Your task to perform on an android device: turn off notifications in google photos Image 0: 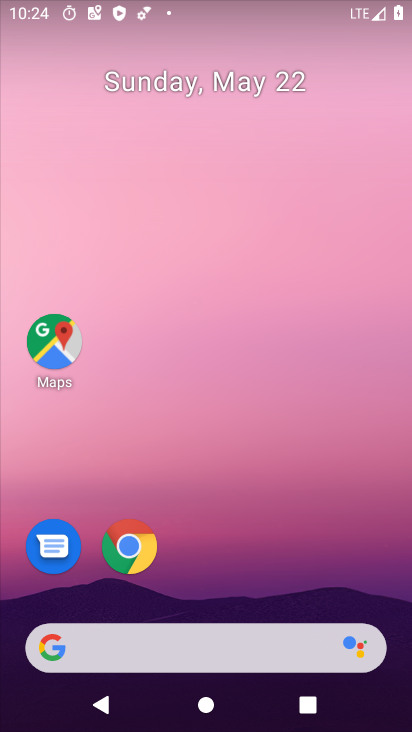
Step 0: drag from (214, 595) to (214, 144)
Your task to perform on an android device: turn off notifications in google photos Image 1: 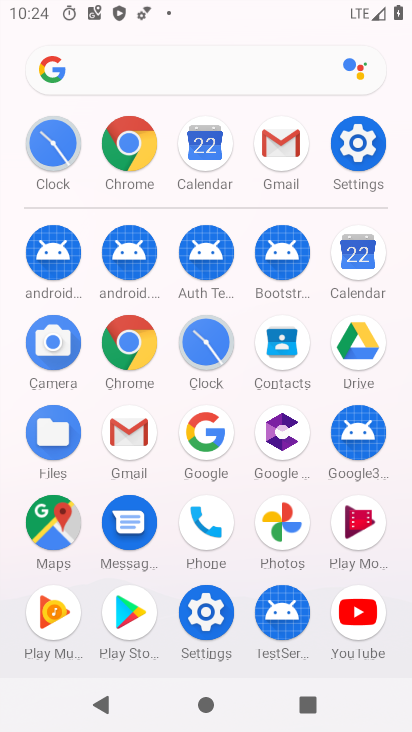
Step 1: click (287, 530)
Your task to perform on an android device: turn off notifications in google photos Image 2: 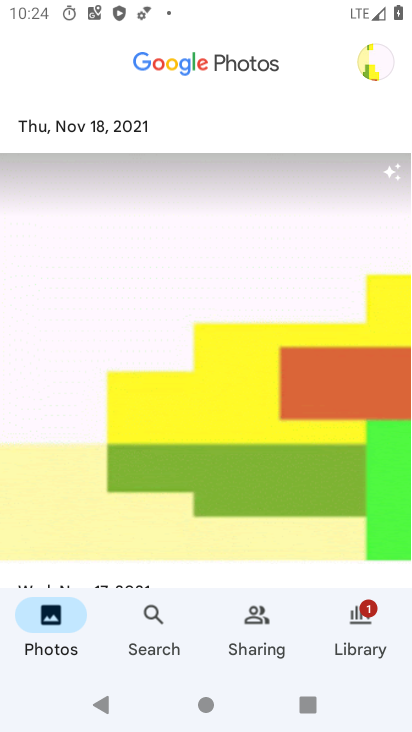
Step 2: drag from (366, 266) to (66, 361)
Your task to perform on an android device: turn off notifications in google photos Image 3: 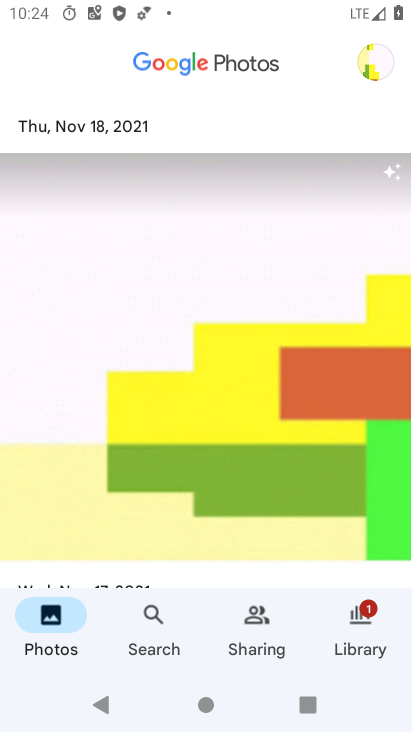
Step 3: drag from (205, 572) to (254, 165)
Your task to perform on an android device: turn off notifications in google photos Image 4: 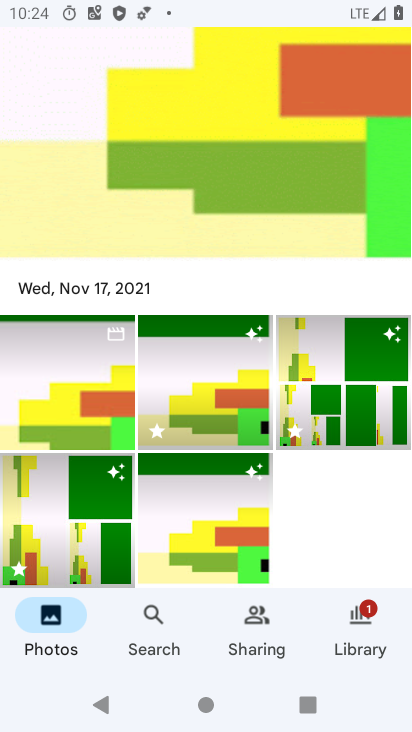
Step 4: drag from (297, 548) to (291, 223)
Your task to perform on an android device: turn off notifications in google photos Image 5: 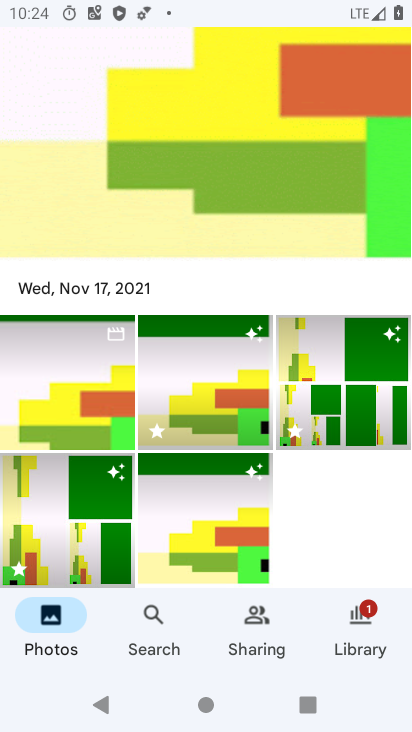
Step 5: drag from (312, 530) to (331, 370)
Your task to perform on an android device: turn off notifications in google photos Image 6: 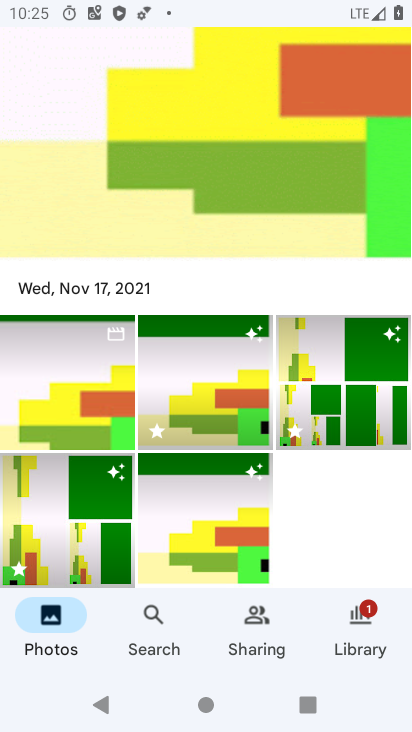
Step 6: drag from (298, 512) to (247, 24)
Your task to perform on an android device: turn off notifications in google photos Image 7: 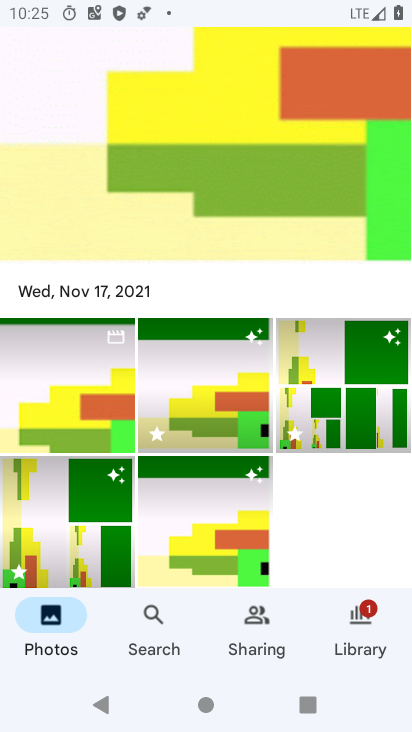
Step 7: drag from (305, 514) to (310, 164)
Your task to perform on an android device: turn off notifications in google photos Image 8: 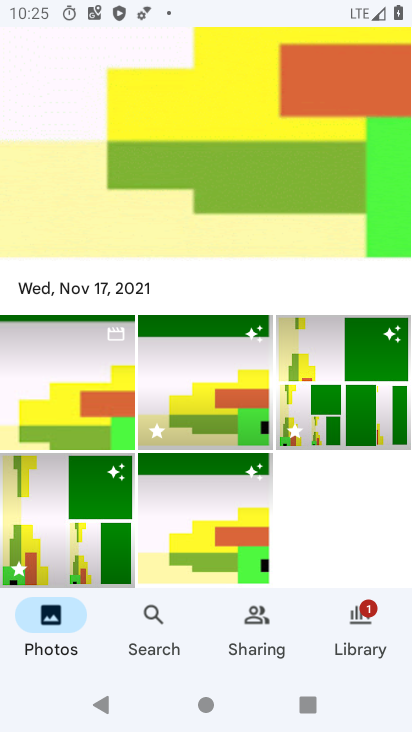
Step 8: click (363, 660)
Your task to perform on an android device: turn off notifications in google photos Image 9: 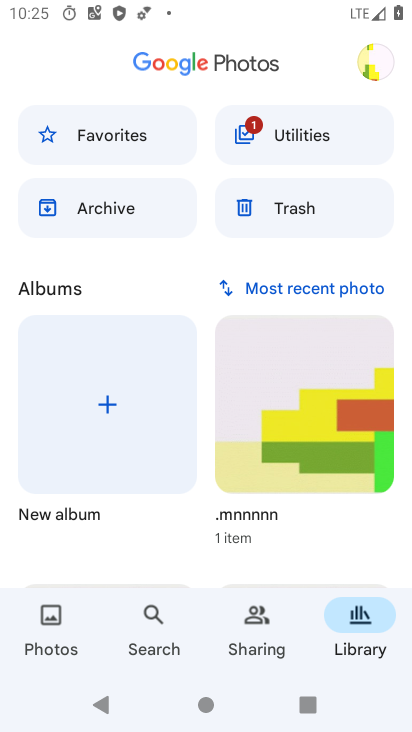
Step 9: click (367, 73)
Your task to perform on an android device: turn off notifications in google photos Image 10: 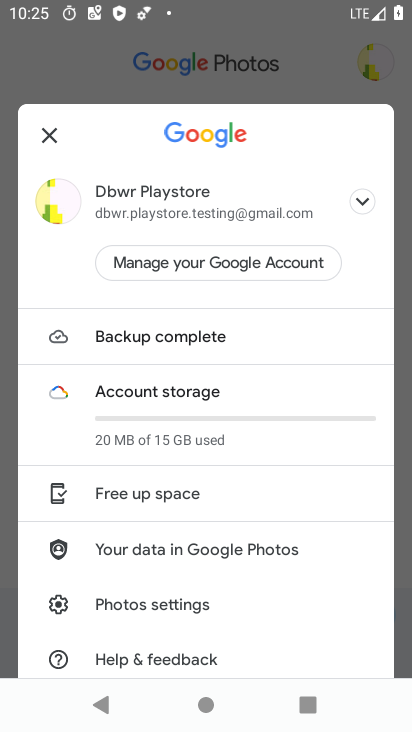
Step 10: drag from (276, 572) to (273, 163)
Your task to perform on an android device: turn off notifications in google photos Image 11: 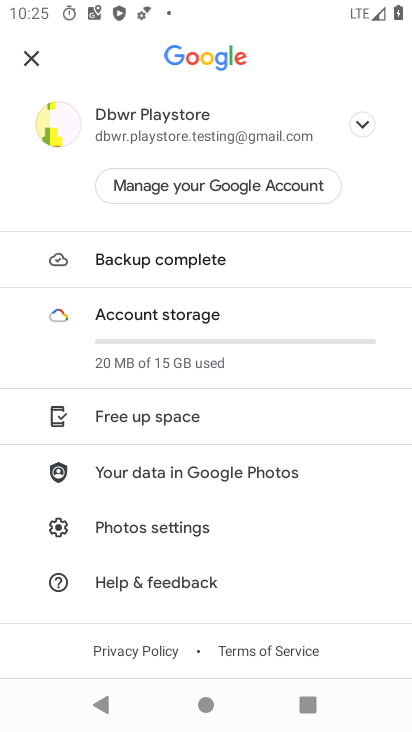
Step 11: drag from (233, 580) to (254, 273)
Your task to perform on an android device: turn off notifications in google photos Image 12: 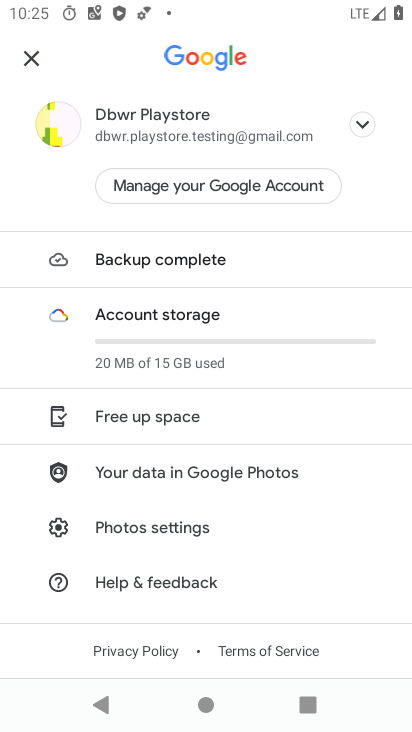
Step 12: click (170, 531)
Your task to perform on an android device: turn off notifications in google photos Image 13: 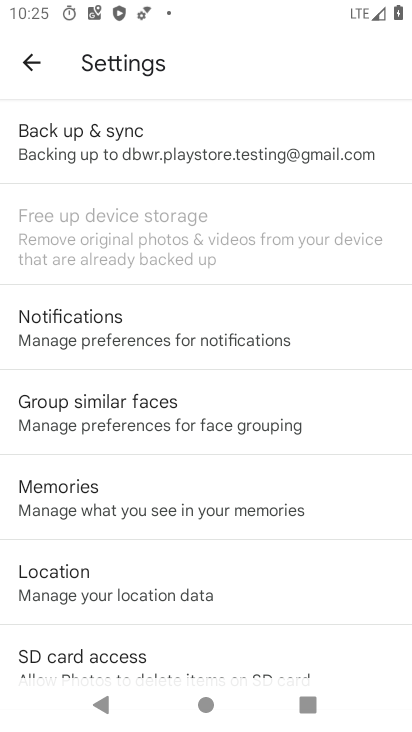
Step 13: drag from (218, 575) to (256, 309)
Your task to perform on an android device: turn off notifications in google photos Image 14: 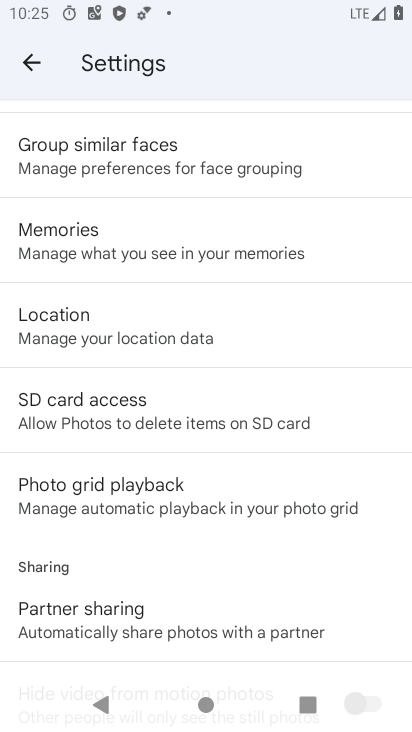
Step 14: drag from (199, 259) to (288, 726)
Your task to perform on an android device: turn off notifications in google photos Image 15: 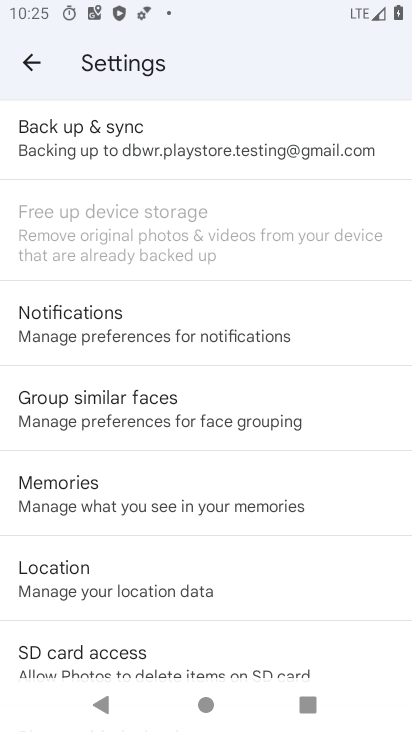
Step 15: drag from (178, 431) to (252, 107)
Your task to perform on an android device: turn off notifications in google photos Image 16: 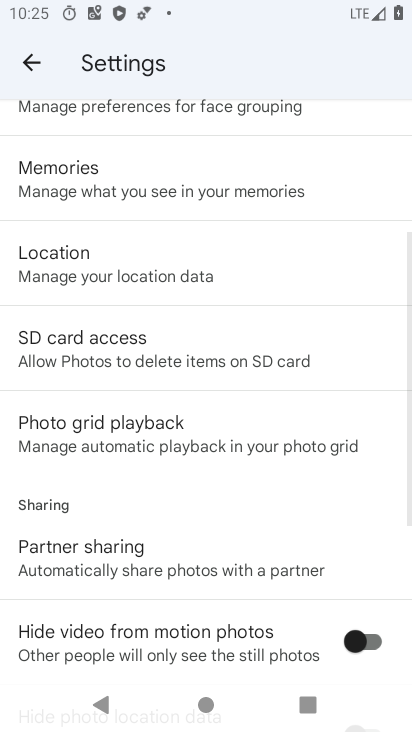
Step 16: drag from (228, 127) to (278, 622)
Your task to perform on an android device: turn off notifications in google photos Image 17: 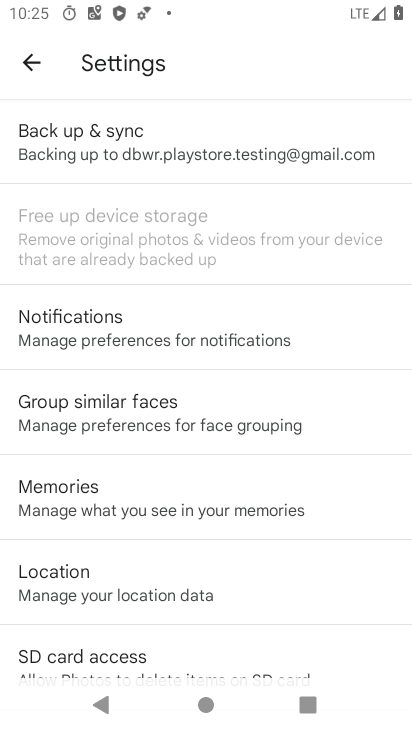
Step 17: click (81, 326)
Your task to perform on an android device: turn off notifications in google photos Image 18: 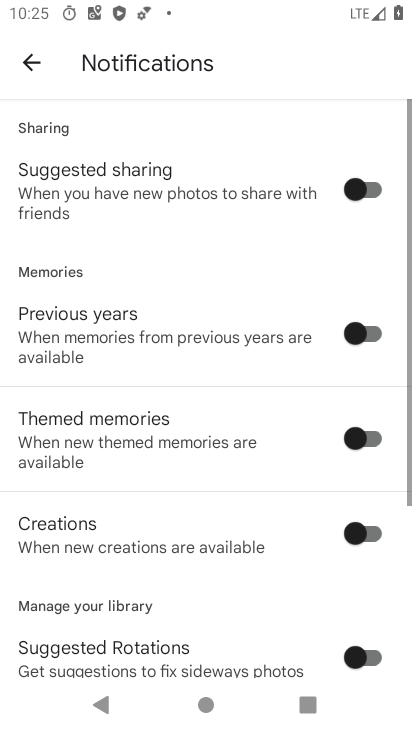
Step 18: drag from (264, 594) to (300, 133)
Your task to perform on an android device: turn off notifications in google photos Image 19: 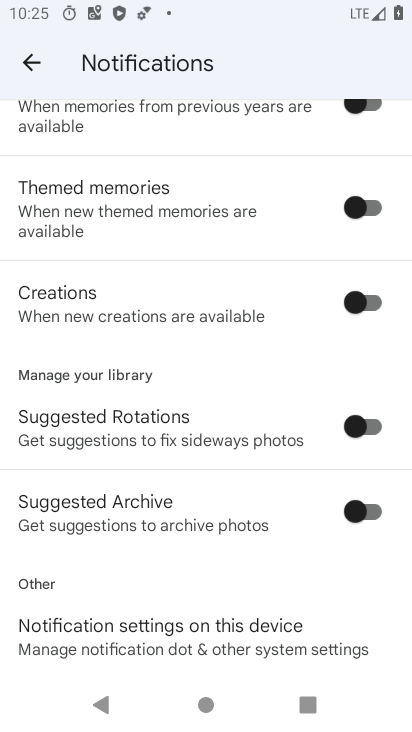
Step 19: click (151, 639)
Your task to perform on an android device: turn off notifications in google photos Image 20: 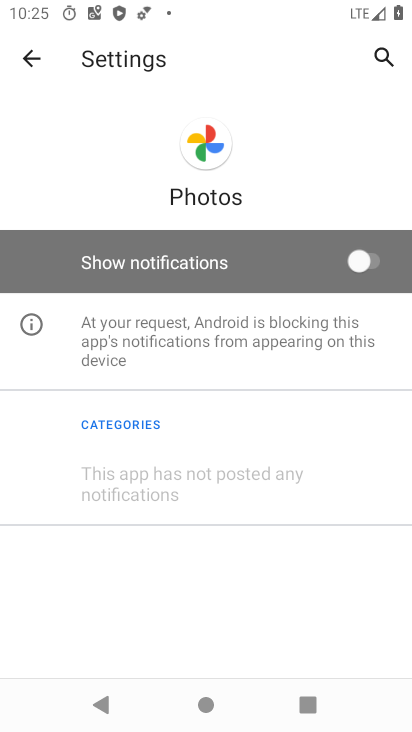
Step 20: task complete